Your task to perform on an android device: Show me the alarms in the clock app Image 0: 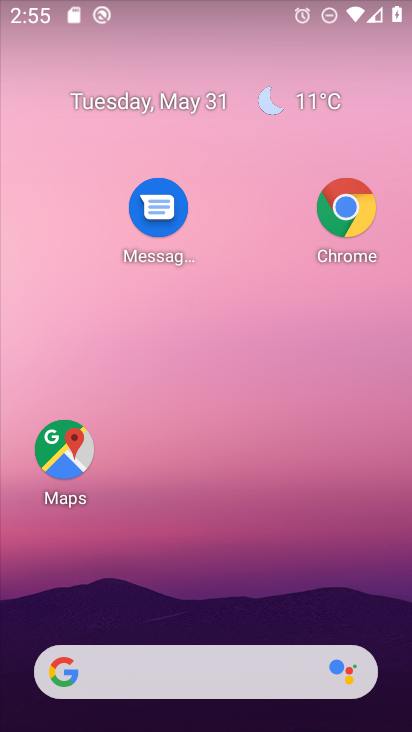
Step 0: drag from (260, 194) to (277, 83)
Your task to perform on an android device: Show me the alarms in the clock app Image 1: 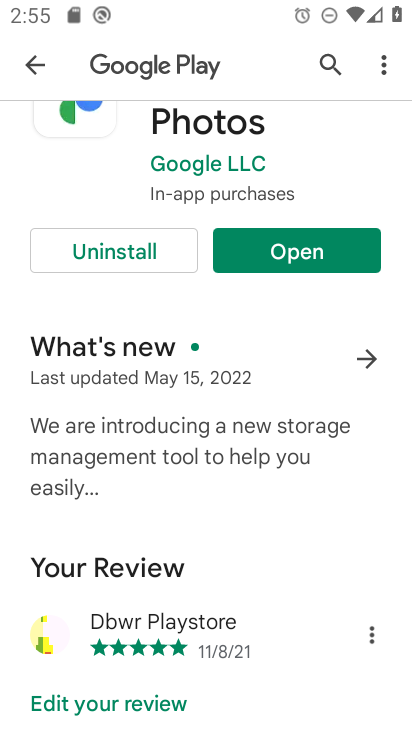
Step 1: press home button
Your task to perform on an android device: Show me the alarms in the clock app Image 2: 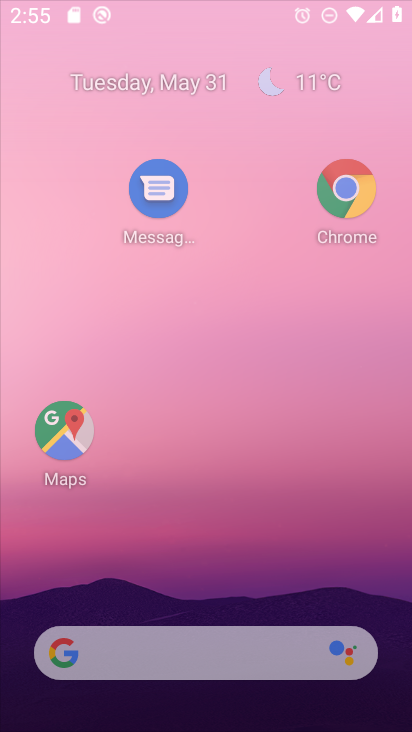
Step 2: drag from (250, 589) to (328, 124)
Your task to perform on an android device: Show me the alarms in the clock app Image 3: 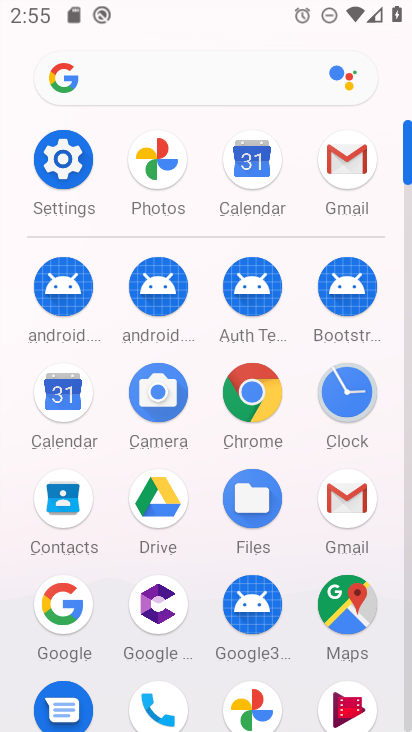
Step 3: click (341, 400)
Your task to perform on an android device: Show me the alarms in the clock app Image 4: 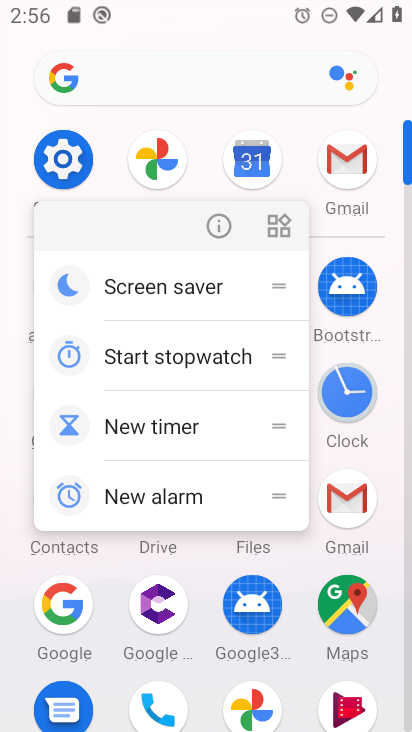
Step 4: click (211, 230)
Your task to perform on an android device: Show me the alarms in the clock app Image 5: 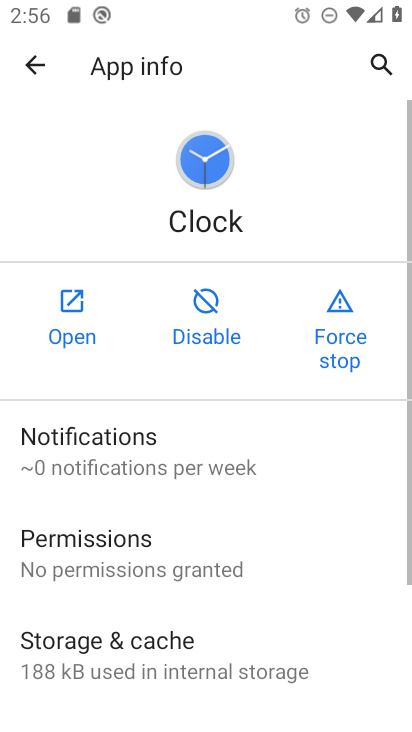
Step 5: click (60, 300)
Your task to perform on an android device: Show me the alarms in the clock app Image 6: 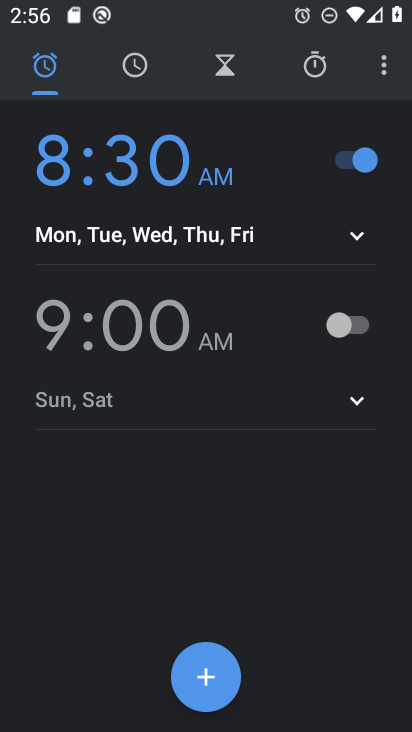
Step 6: task complete